Your task to perform on an android device: toggle translation in the chrome app Image 0: 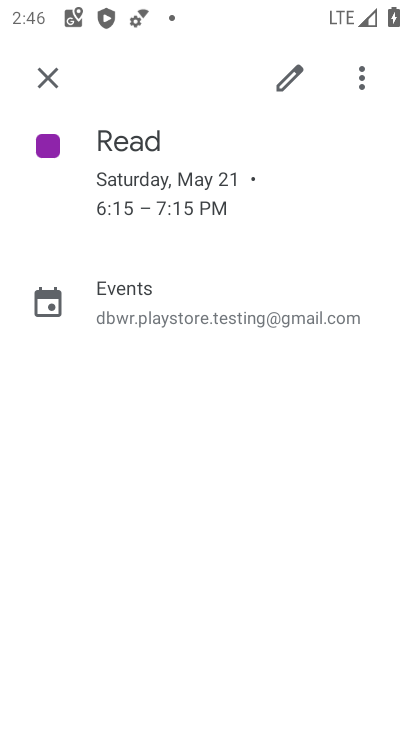
Step 0: drag from (163, 599) to (297, 133)
Your task to perform on an android device: toggle translation in the chrome app Image 1: 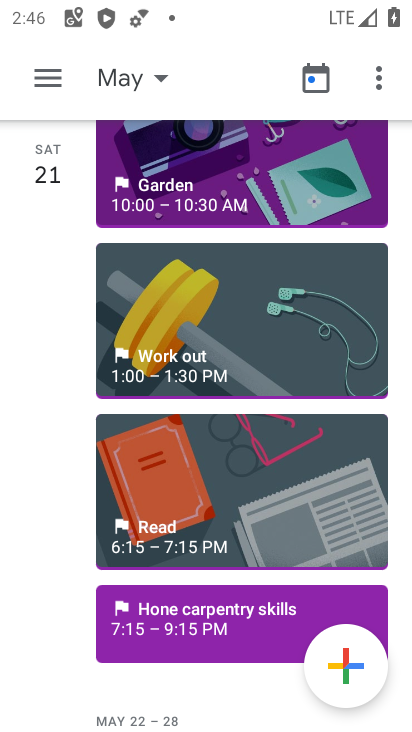
Step 1: drag from (213, 136) to (213, 582)
Your task to perform on an android device: toggle translation in the chrome app Image 2: 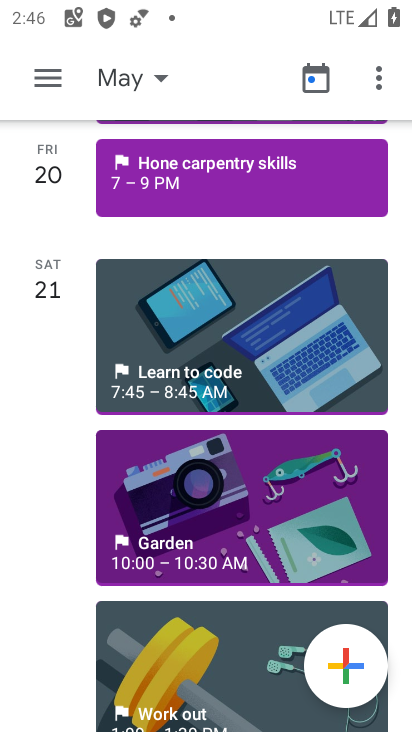
Step 2: drag from (244, 241) to (148, 714)
Your task to perform on an android device: toggle translation in the chrome app Image 3: 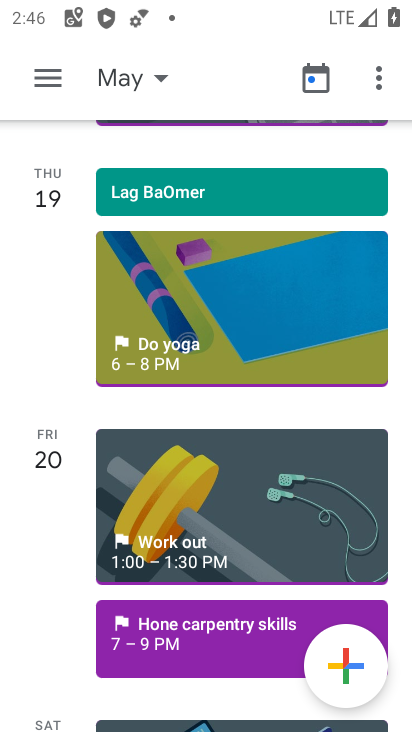
Step 3: press back button
Your task to perform on an android device: toggle translation in the chrome app Image 4: 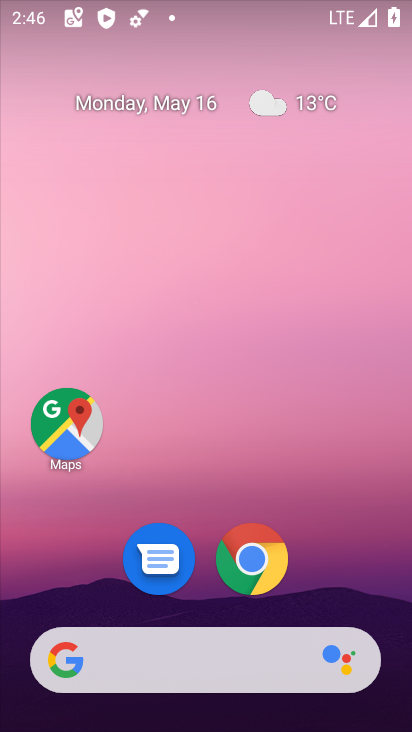
Step 4: click (261, 586)
Your task to perform on an android device: toggle translation in the chrome app Image 5: 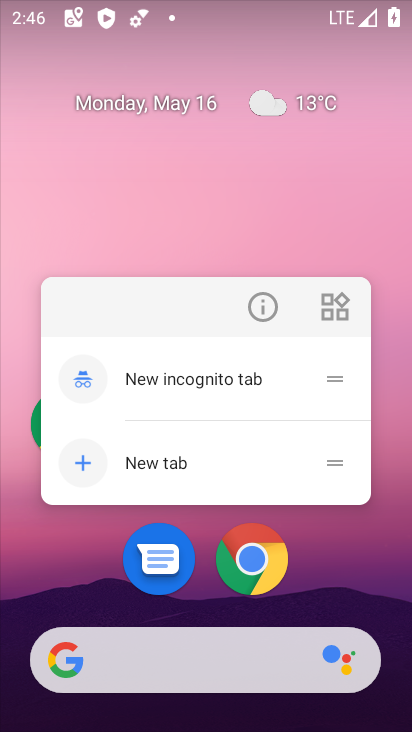
Step 5: click (261, 573)
Your task to perform on an android device: toggle translation in the chrome app Image 6: 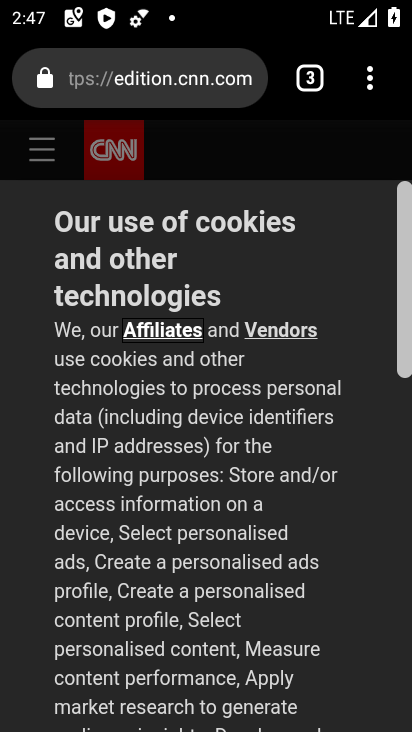
Step 6: drag from (368, 75) to (120, 616)
Your task to perform on an android device: toggle translation in the chrome app Image 7: 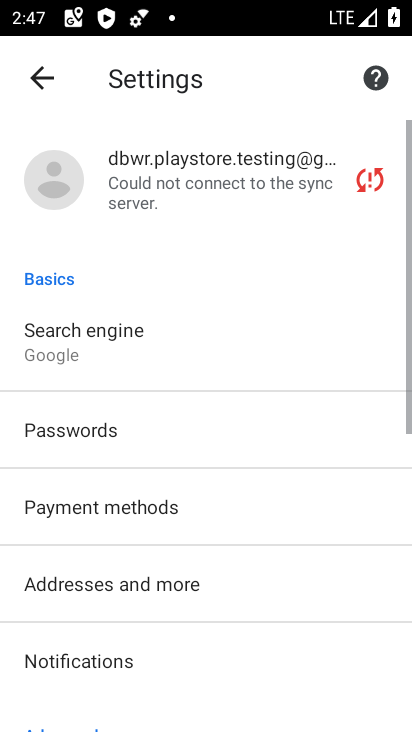
Step 7: drag from (115, 602) to (298, 179)
Your task to perform on an android device: toggle translation in the chrome app Image 8: 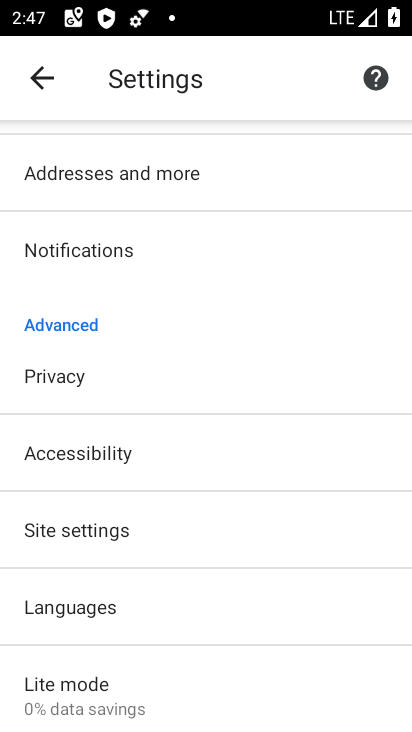
Step 8: click (62, 608)
Your task to perform on an android device: toggle translation in the chrome app Image 9: 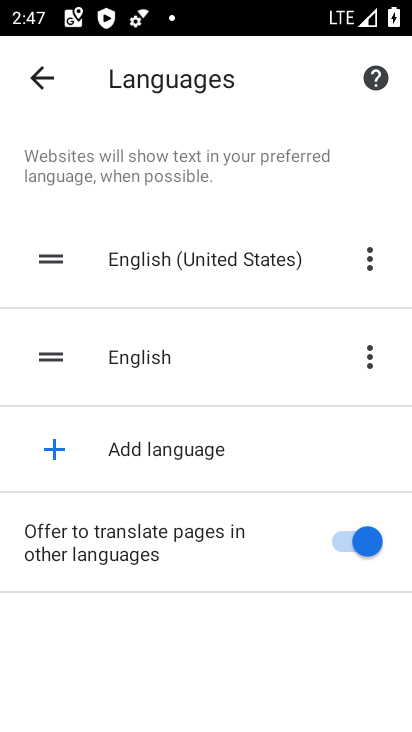
Step 9: click (365, 536)
Your task to perform on an android device: toggle translation in the chrome app Image 10: 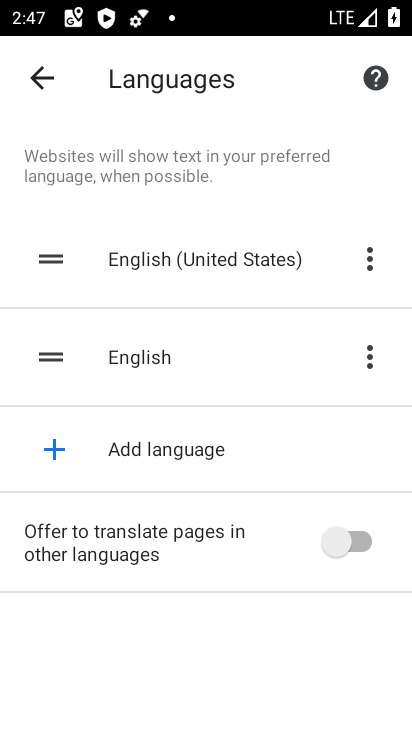
Step 10: task complete